Your task to perform on an android device: turn on notifications settings in the gmail app Image 0: 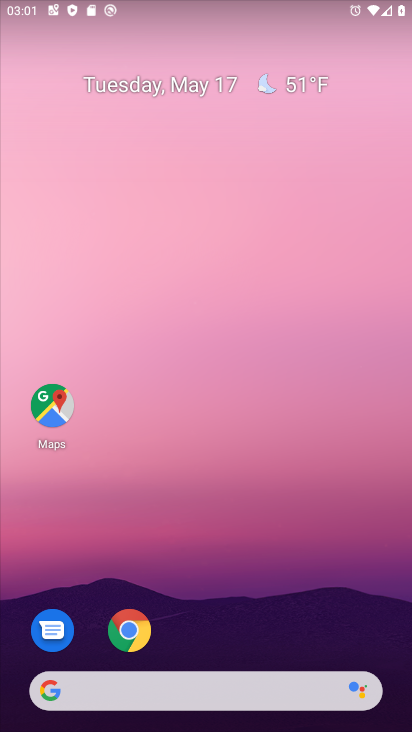
Step 0: drag from (190, 649) to (277, 17)
Your task to perform on an android device: turn on notifications settings in the gmail app Image 1: 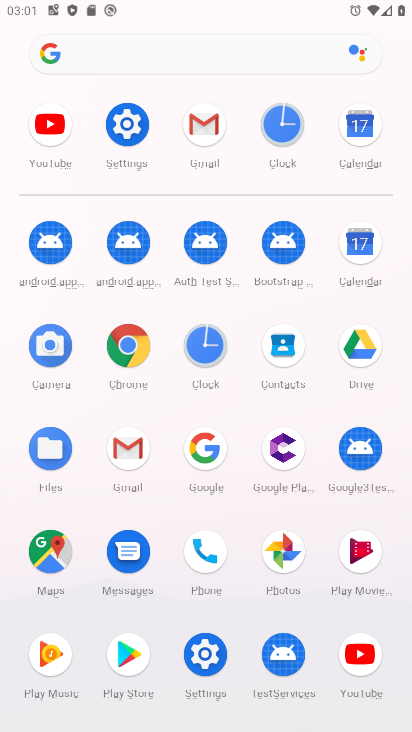
Step 1: click (198, 115)
Your task to perform on an android device: turn on notifications settings in the gmail app Image 2: 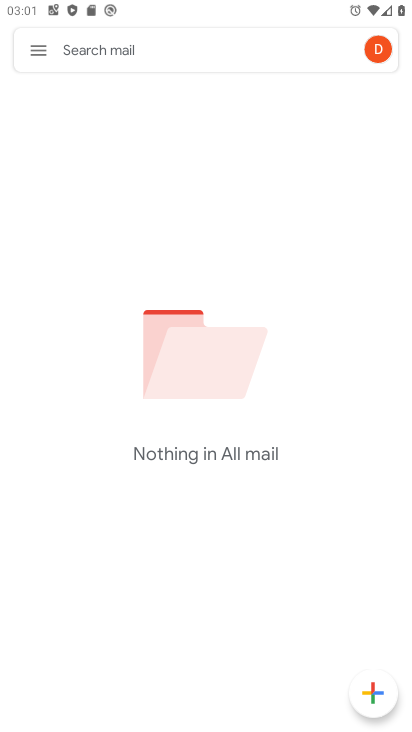
Step 2: click (39, 52)
Your task to perform on an android device: turn on notifications settings in the gmail app Image 3: 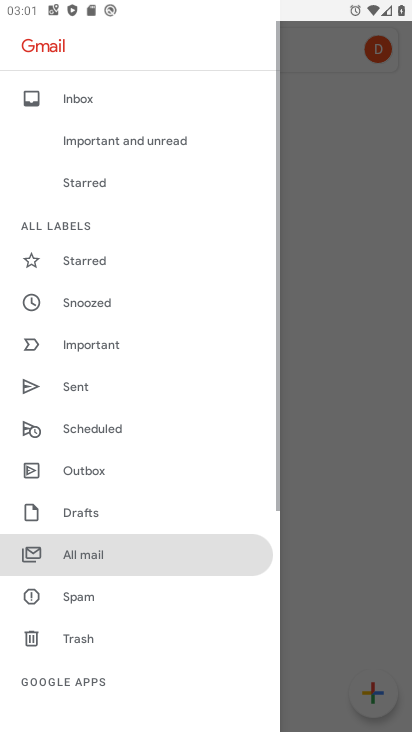
Step 3: drag from (86, 665) to (191, 69)
Your task to perform on an android device: turn on notifications settings in the gmail app Image 4: 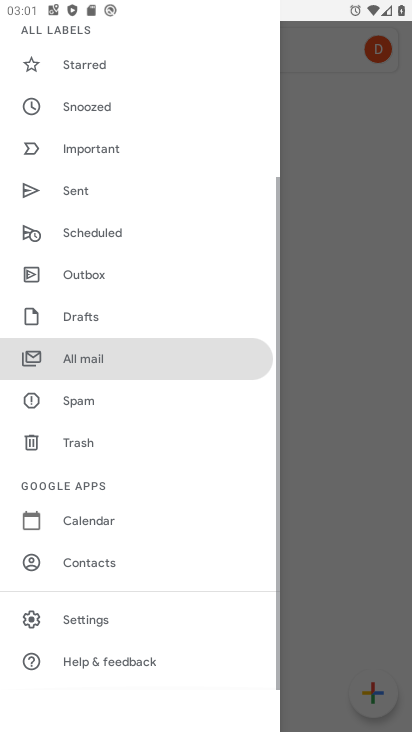
Step 4: click (92, 612)
Your task to perform on an android device: turn on notifications settings in the gmail app Image 5: 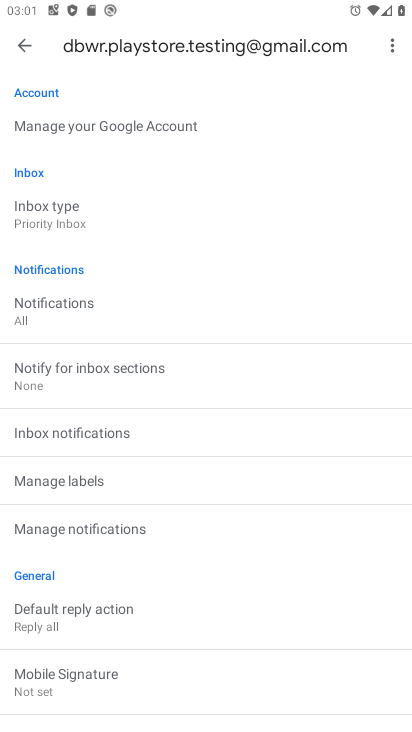
Step 5: click (68, 527)
Your task to perform on an android device: turn on notifications settings in the gmail app Image 6: 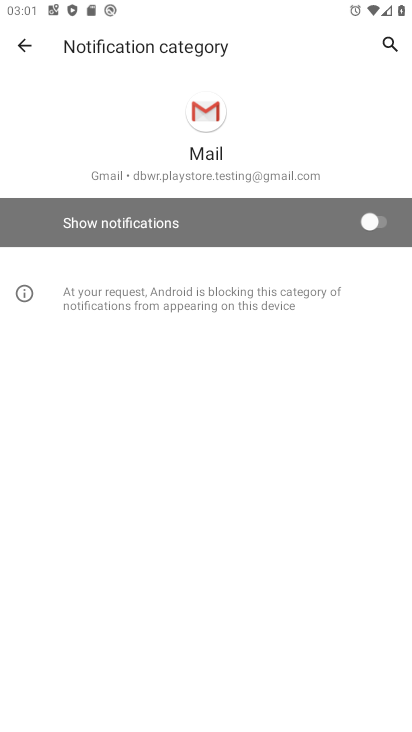
Step 6: click (374, 220)
Your task to perform on an android device: turn on notifications settings in the gmail app Image 7: 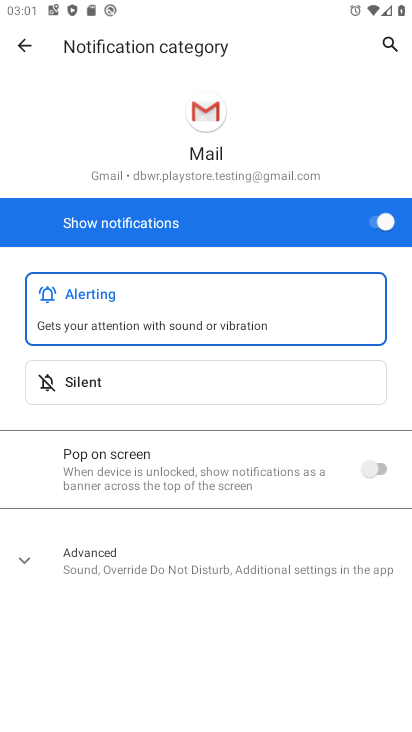
Step 7: task complete